Your task to perform on an android device: Search for macbook air on ebay.com, select the first entry, add it to the cart, then select checkout. Image 0: 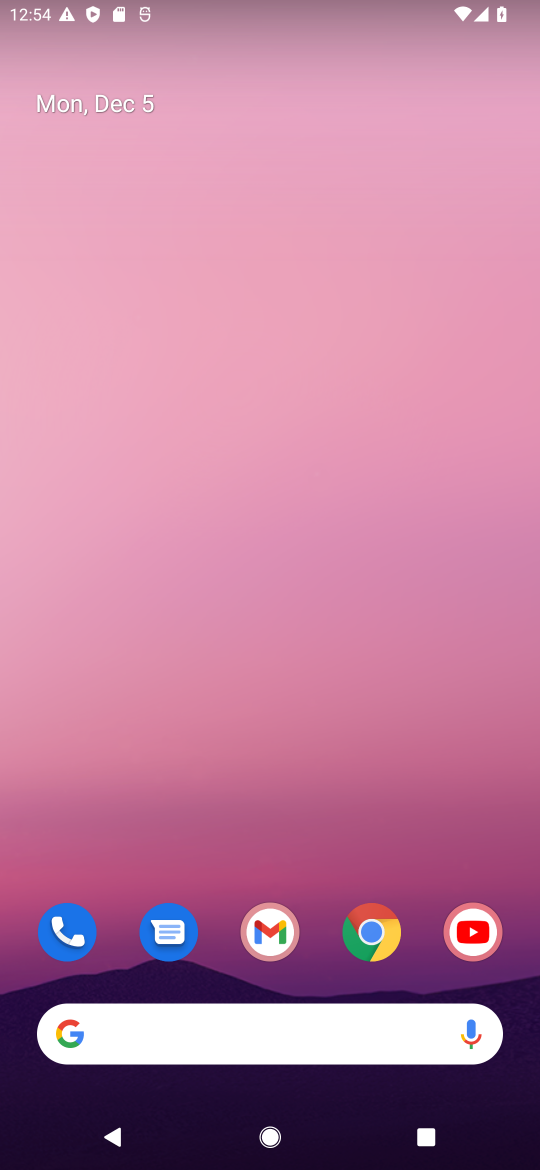
Step 0: click (361, 937)
Your task to perform on an android device: Search for macbook air on ebay.com, select the first entry, add it to the cart, then select checkout. Image 1: 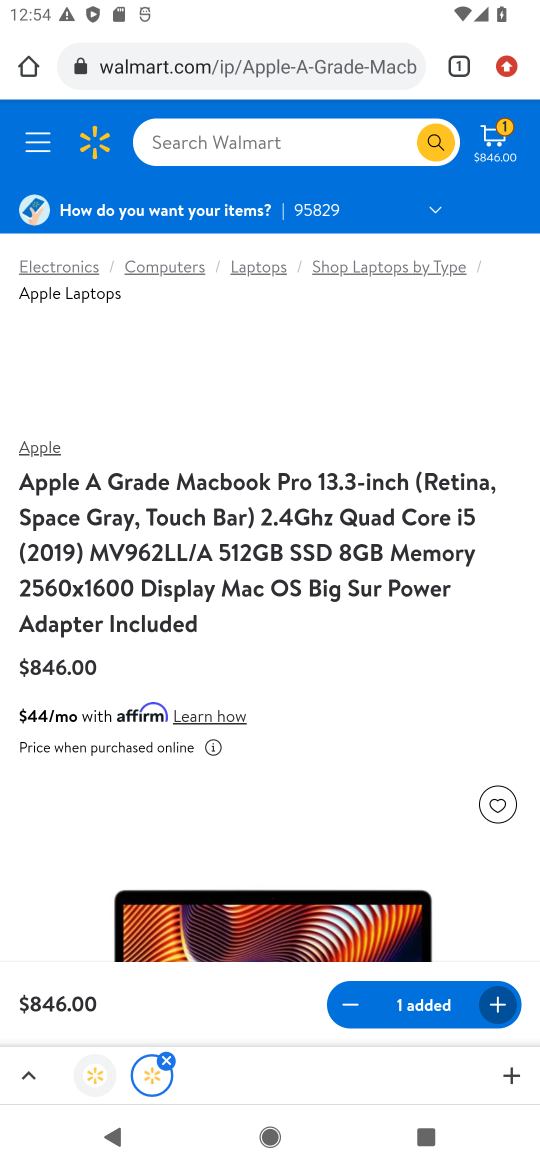
Step 1: click (240, 129)
Your task to perform on an android device: Search for macbook air on ebay.com, select the first entry, add it to the cart, then select checkout. Image 2: 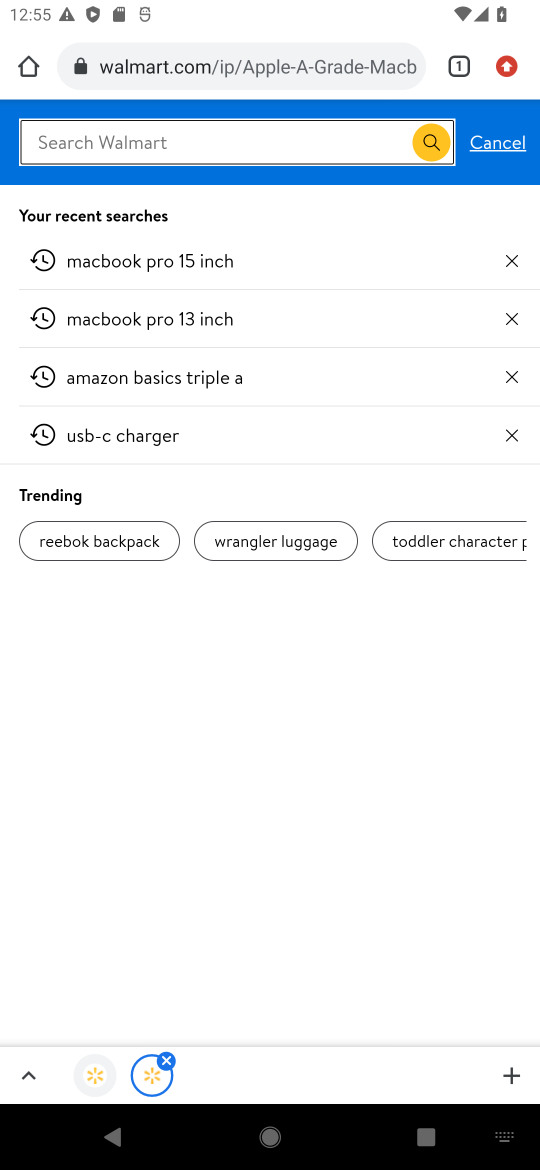
Step 2: click (143, 62)
Your task to perform on an android device: Search for macbook air on ebay.com, select the first entry, add it to the cart, then select checkout. Image 3: 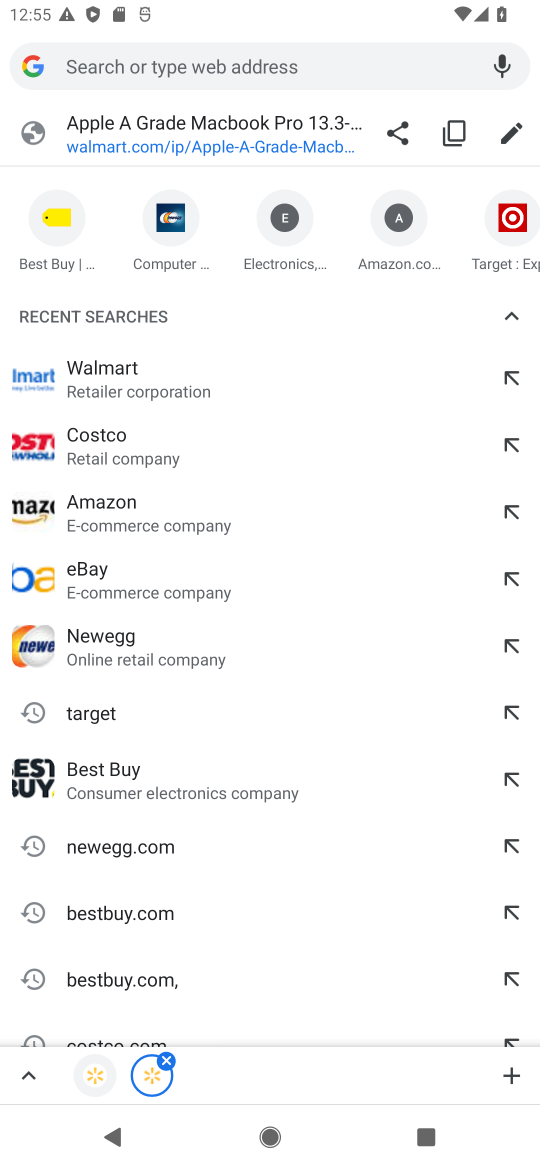
Step 3: click (103, 575)
Your task to perform on an android device: Search for macbook air on ebay.com, select the first entry, add it to the cart, then select checkout. Image 4: 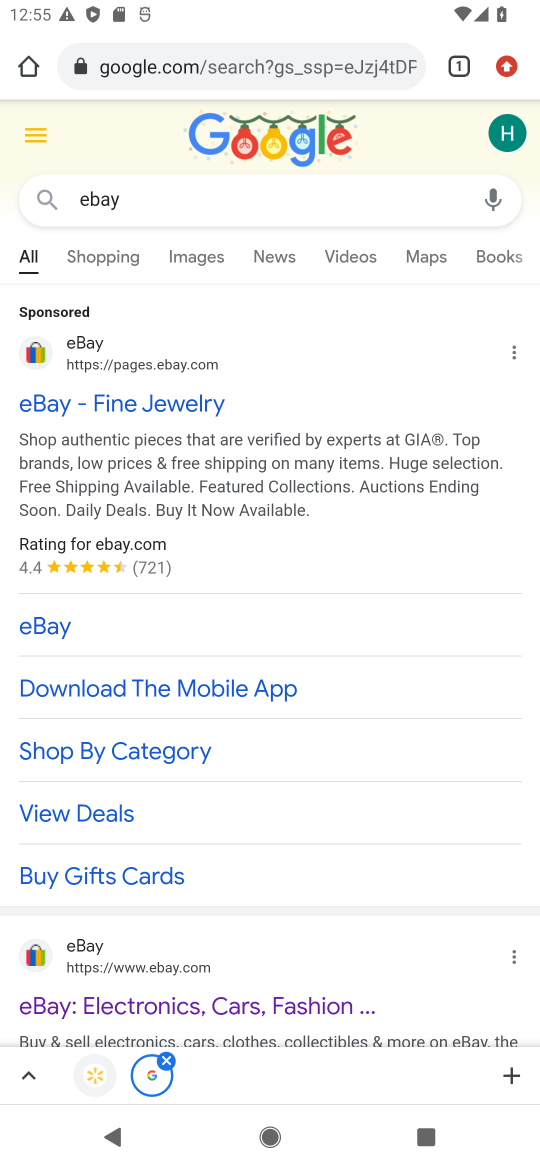
Step 4: click (56, 396)
Your task to perform on an android device: Search for macbook air on ebay.com, select the first entry, add it to the cart, then select checkout. Image 5: 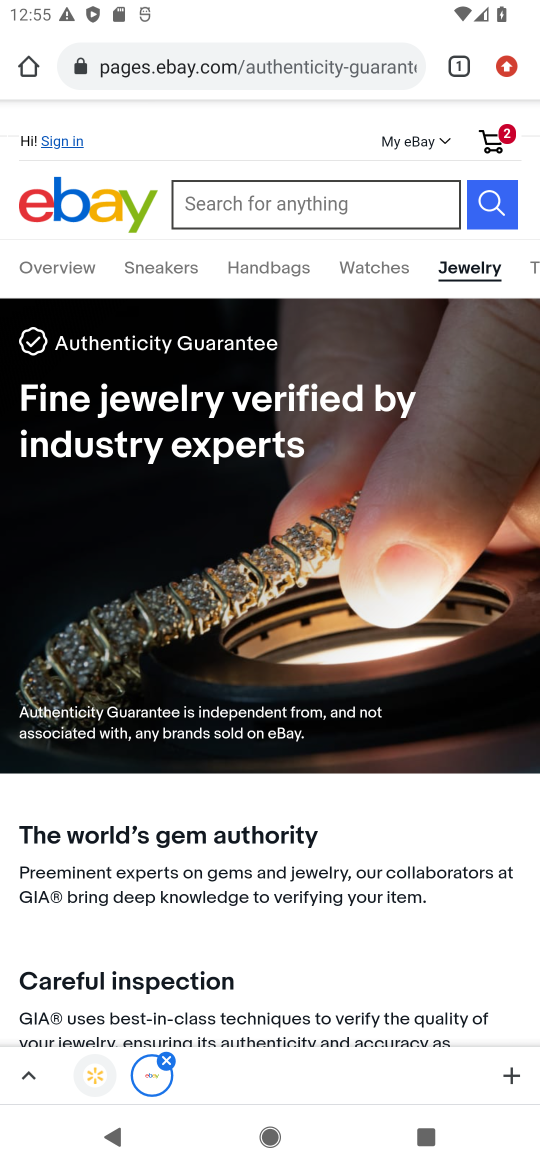
Step 5: click (300, 201)
Your task to perform on an android device: Search for macbook air on ebay.com, select the first entry, add it to the cart, then select checkout. Image 6: 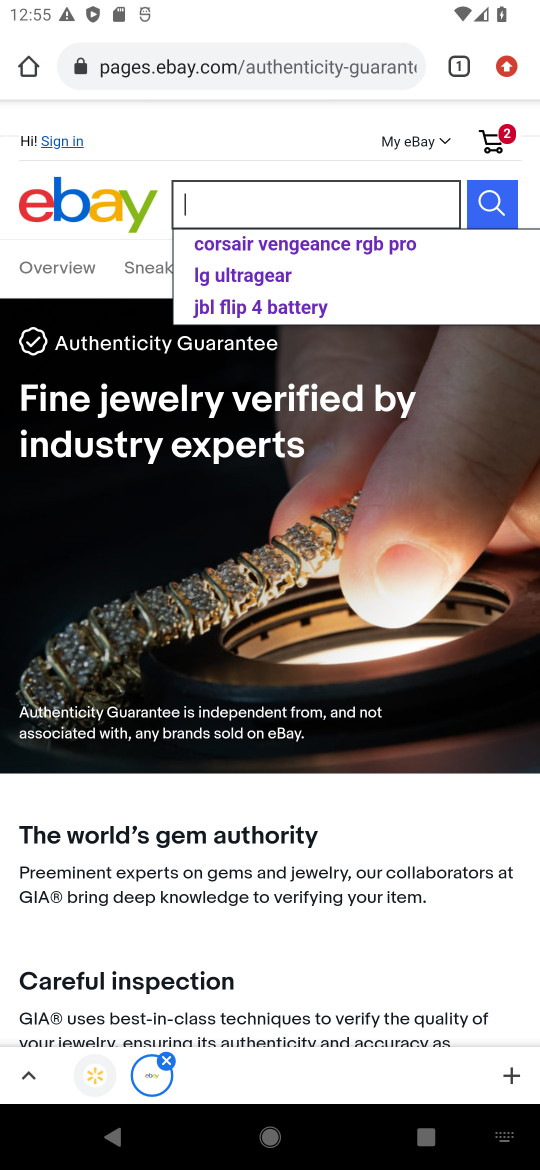
Step 6: type "macbook air"
Your task to perform on an android device: Search for macbook air on ebay.com, select the first entry, add it to the cart, then select checkout. Image 7: 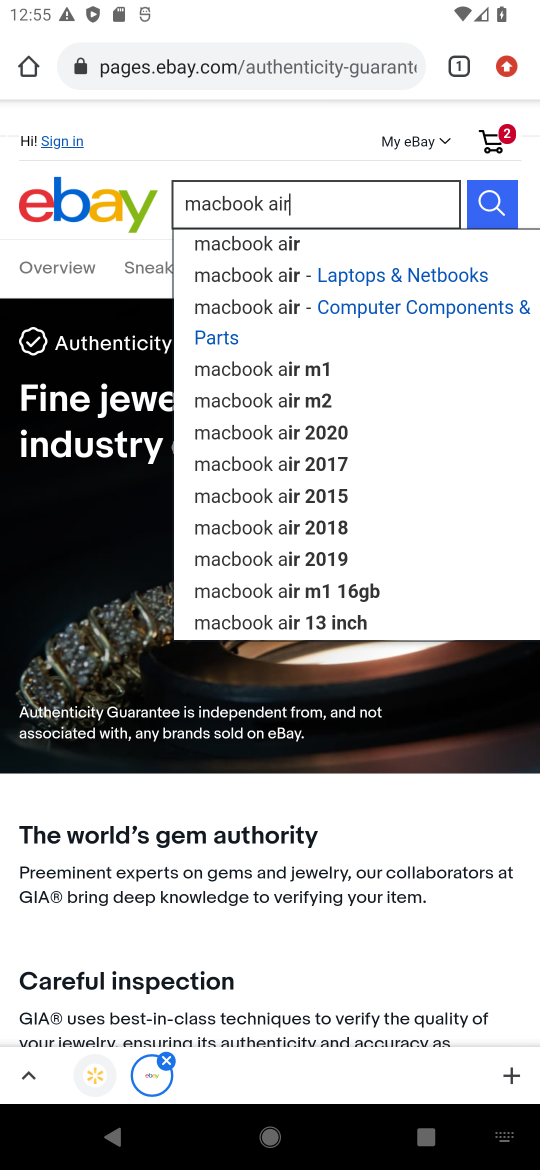
Step 7: click (258, 242)
Your task to perform on an android device: Search for macbook air on ebay.com, select the first entry, add it to the cart, then select checkout. Image 8: 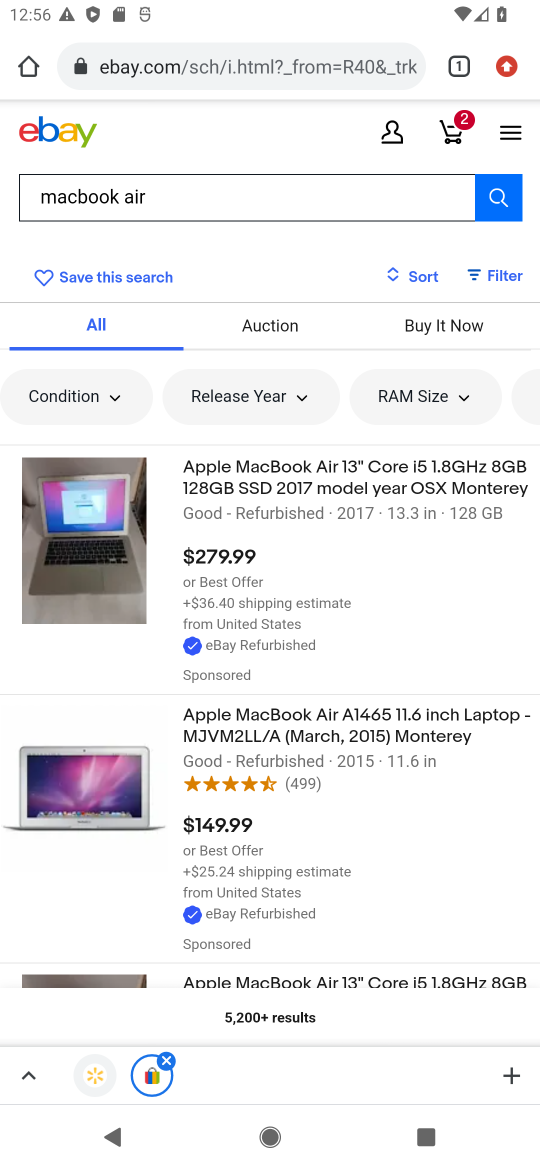
Step 8: click (118, 529)
Your task to perform on an android device: Search for macbook air on ebay.com, select the first entry, add it to the cart, then select checkout. Image 9: 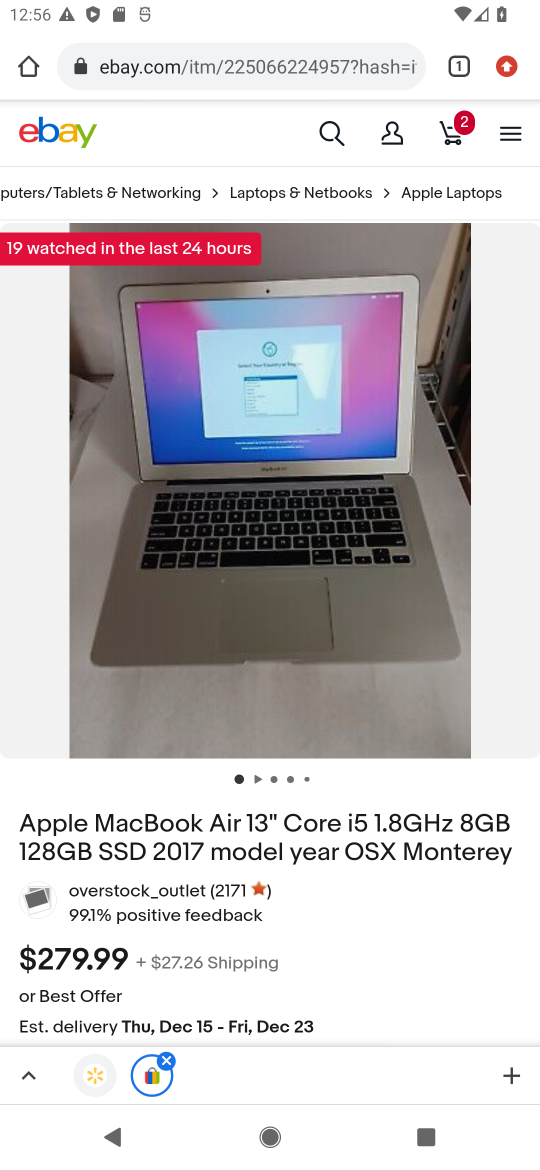
Step 9: drag from (370, 947) to (323, 287)
Your task to perform on an android device: Search for macbook air on ebay.com, select the first entry, add it to the cart, then select checkout. Image 10: 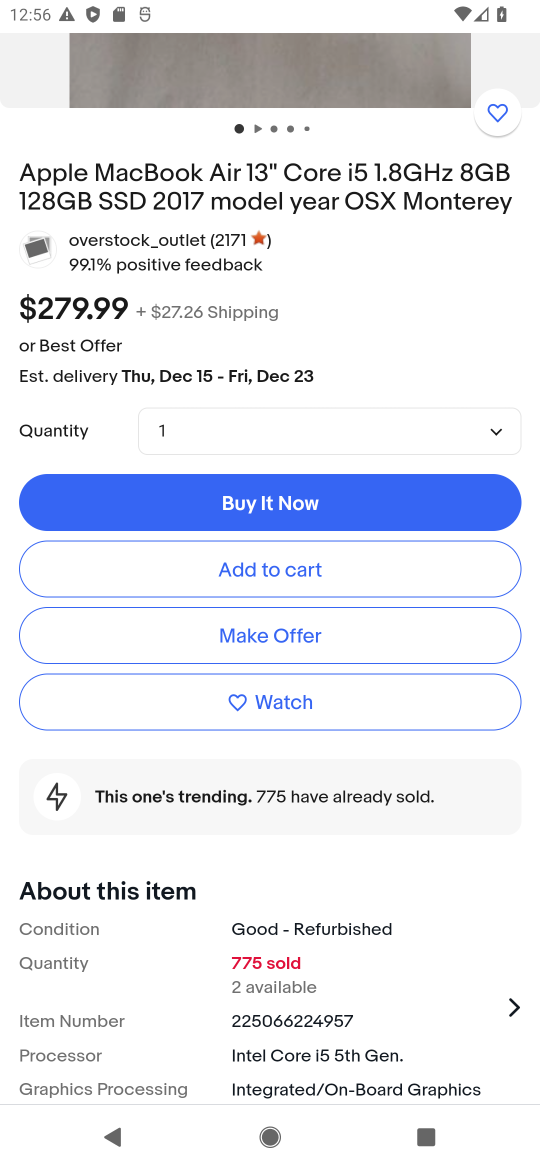
Step 10: click (263, 568)
Your task to perform on an android device: Search for macbook air on ebay.com, select the first entry, add it to the cart, then select checkout. Image 11: 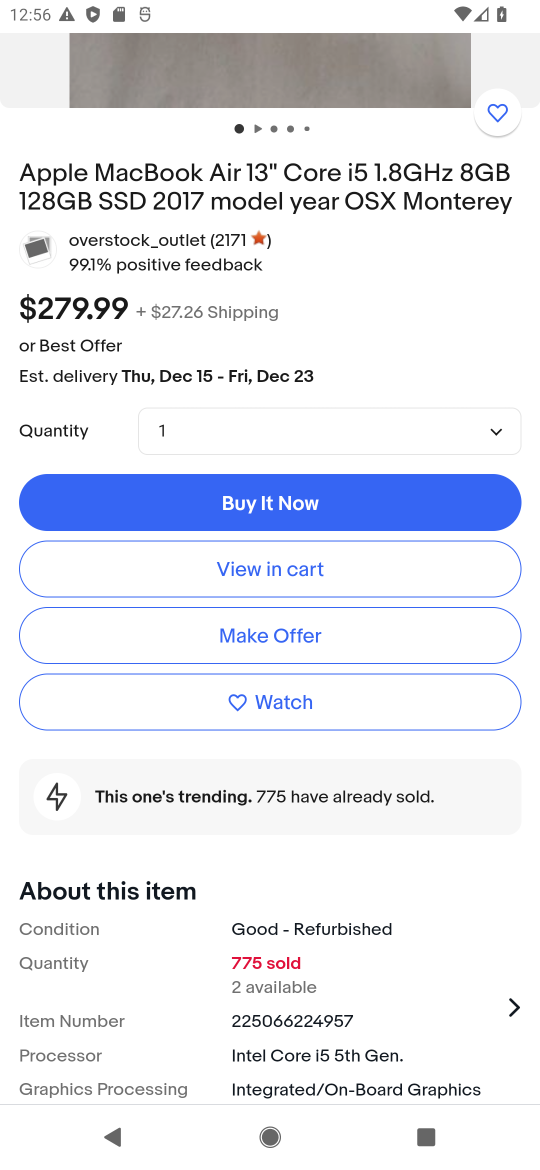
Step 11: click (302, 569)
Your task to perform on an android device: Search for macbook air on ebay.com, select the first entry, add it to the cart, then select checkout. Image 12: 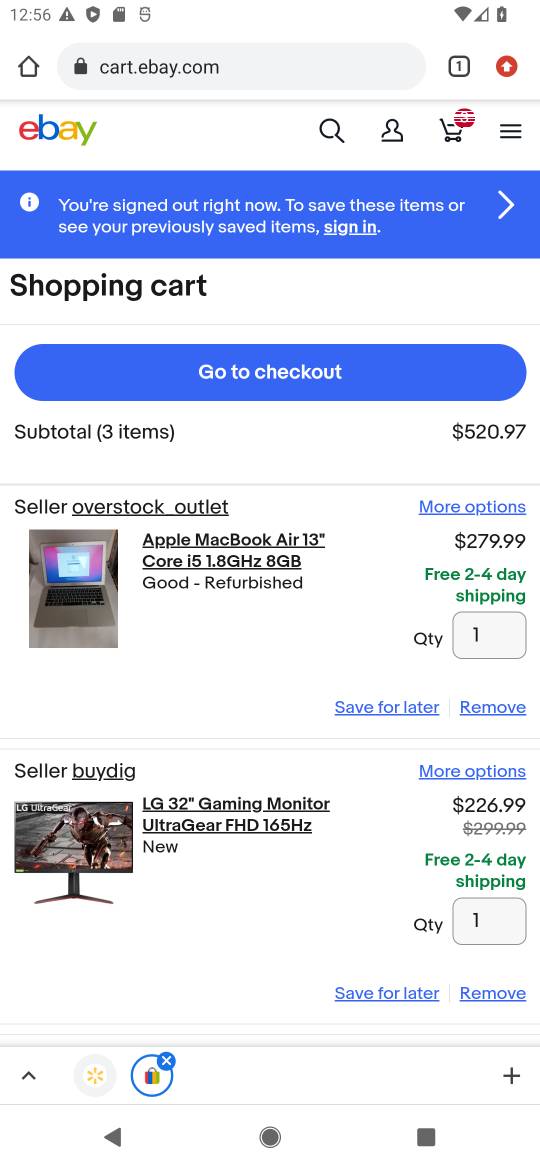
Step 12: click (306, 374)
Your task to perform on an android device: Search for macbook air on ebay.com, select the first entry, add it to the cart, then select checkout. Image 13: 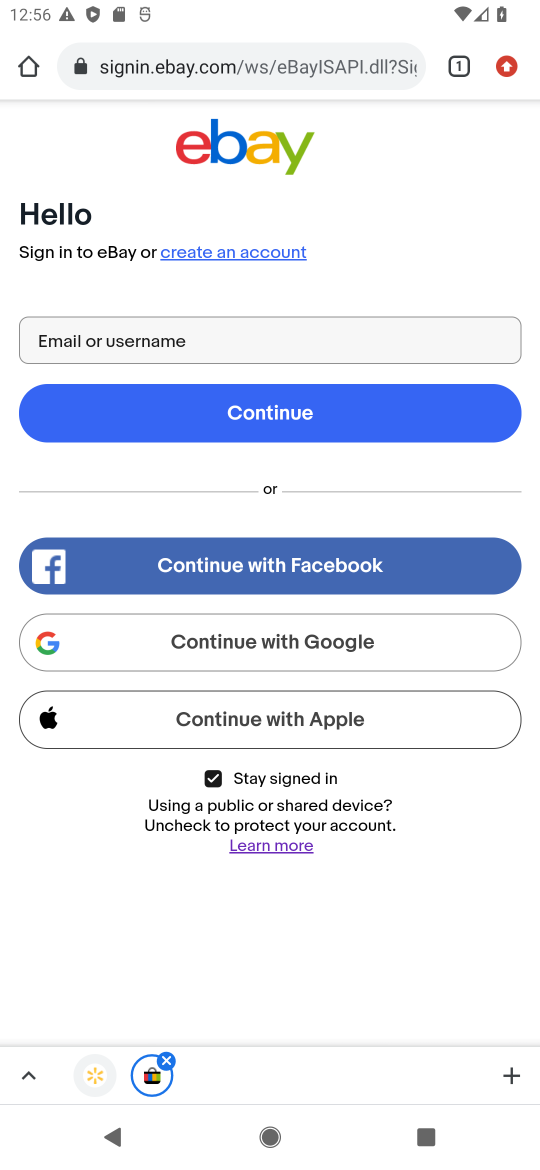
Step 13: task complete